Your task to perform on an android device: Do I have any events this weekend? Image 0: 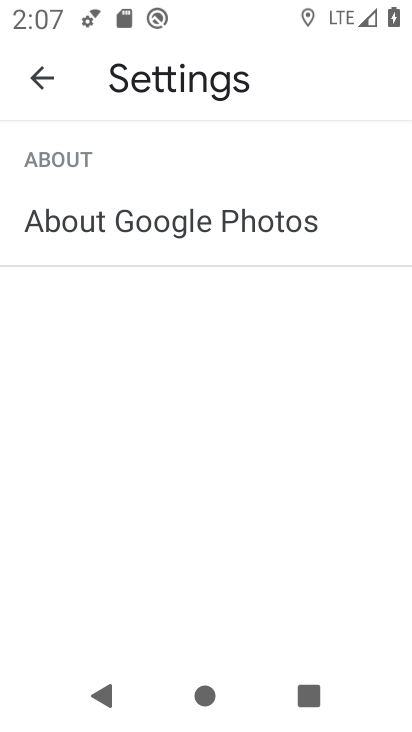
Step 0: press home button
Your task to perform on an android device: Do I have any events this weekend? Image 1: 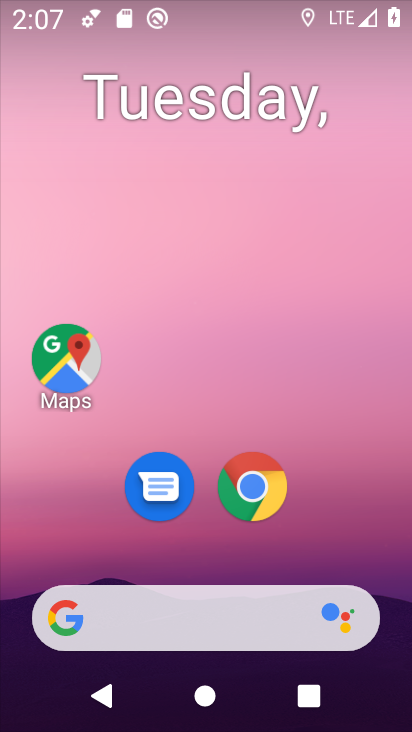
Step 1: drag from (356, 511) to (372, 29)
Your task to perform on an android device: Do I have any events this weekend? Image 2: 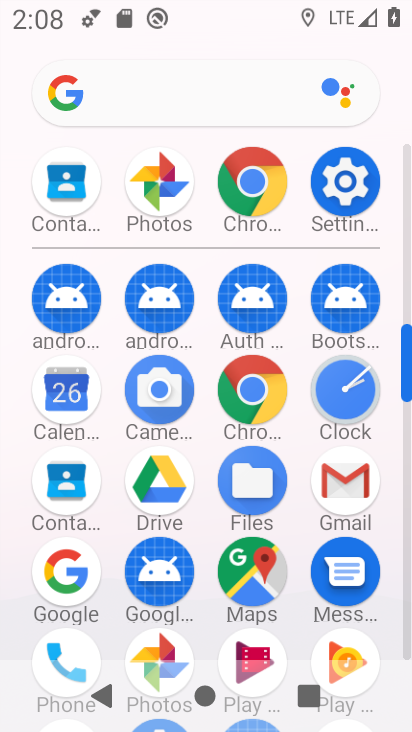
Step 2: click (58, 405)
Your task to perform on an android device: Do I have any events this weekend? Image 3: 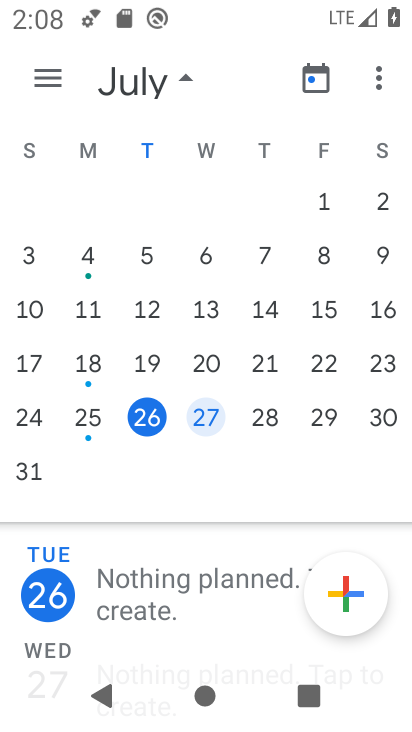
Step 3: task complete